Your task to perform on an android device: Open Google Maps and go to "Timeline" Image 0: 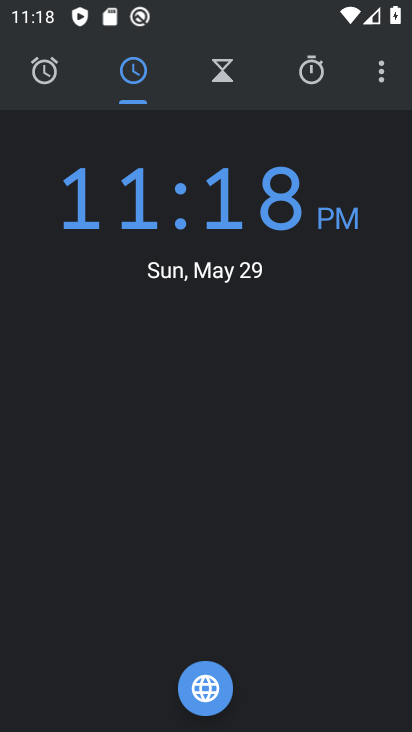
Step 0: press home button
Your task to perform on an android device: Open Google Maps and go to "Timeline" Image 1: 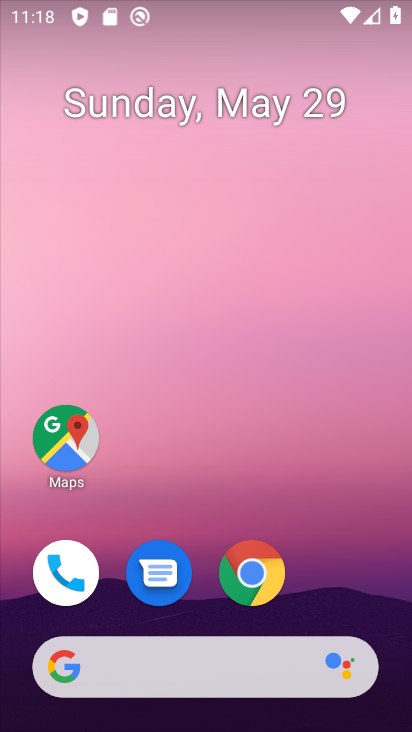
Step 1: click (75, 421)
Your task to perform on an android device: Open Google Maps and go to "Timeline" Image 2: 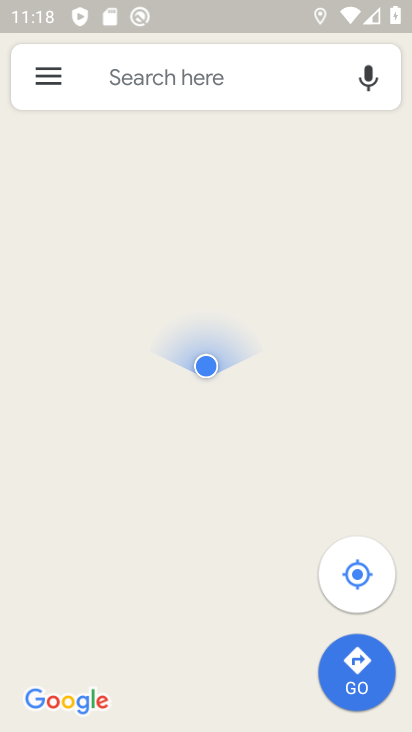
Step 2: click (41, 83)
Your task to perform on an android device: Open Google Maps and go to "Timeline" Image 3: 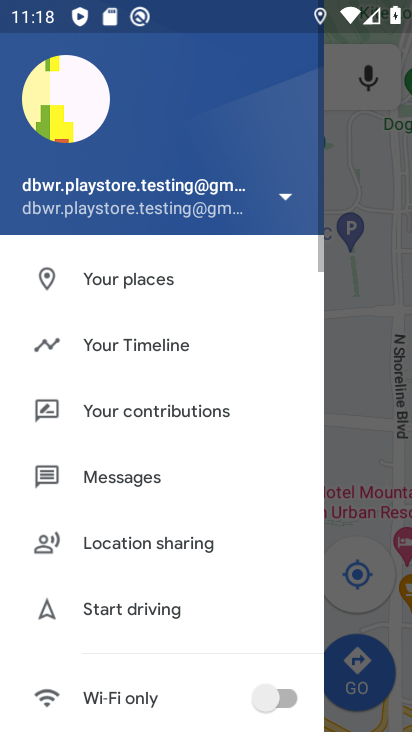
Step 3: click (167, 344)
Your task to perform on an android device: Open Google Maps and go to "Timeline" Image 4: 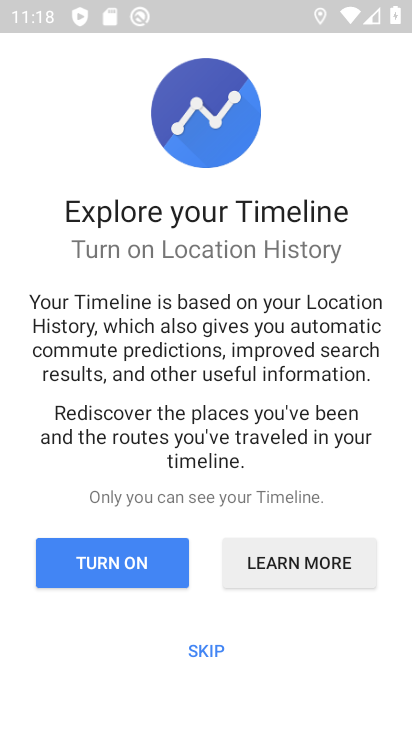
Step 4: click (216, 647)
Your task to perform on an android device: Open Google Maps and go to "Timeline" Image 5: 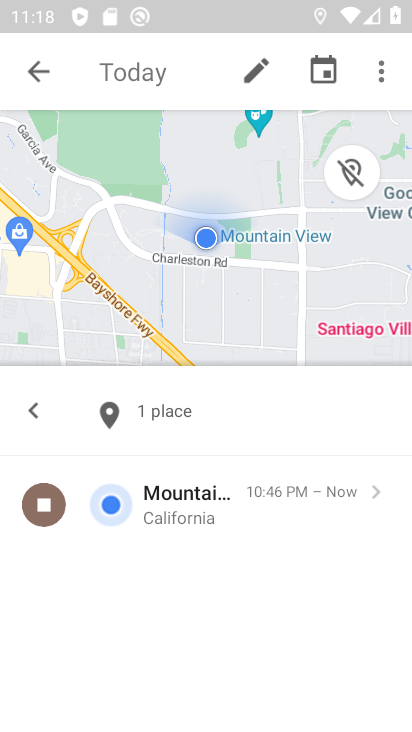
Step 5: task complete